Your task to perform on an android device: clear history in the chrome app Image 0: 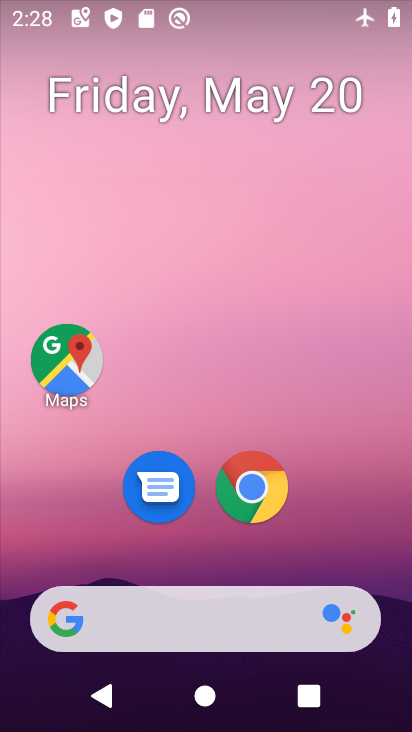
Step 0: drag from (310, 529) to (407, 4)
Your task to perform on an android device: clear history in the chrome app Image 1: 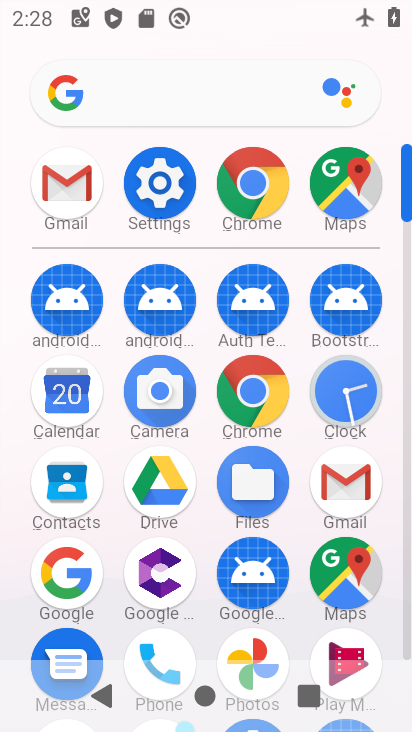
Step 1: click (259, 186)
Your task to perform on an android device: clear history in the chrome app Image 2: 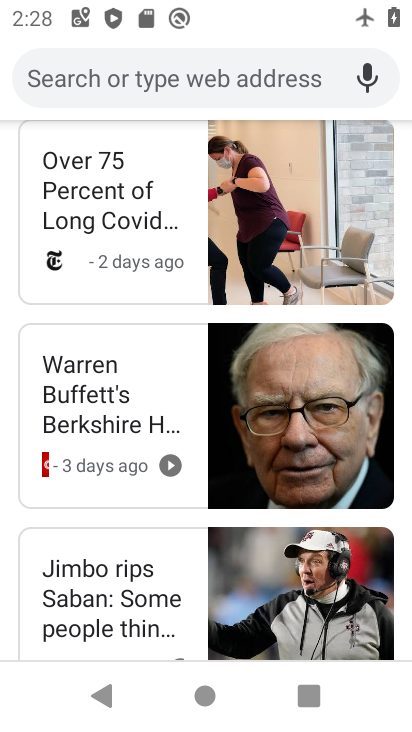
Step 2: drag from (199, 189) to (273, 685)
Your task to perform on an android device: clear history in the chrome app Image 3: 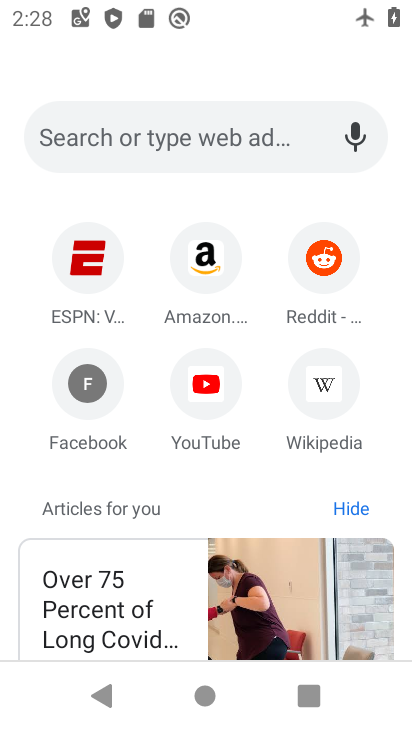
Step 3: drag from (305, 181) to (385, 617)
Your task to perform on an android device: clear history in the chrome app Image 4: 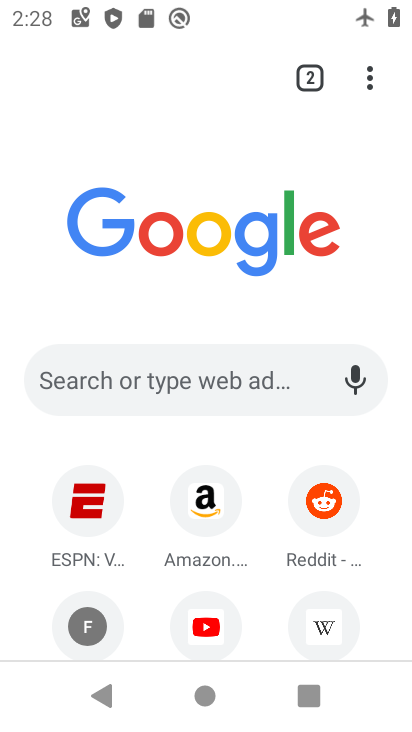
Step 4: drag from (360, 85) to (108, 438)
Your task to perform on an android device: clear history in the chrome app Image 5: 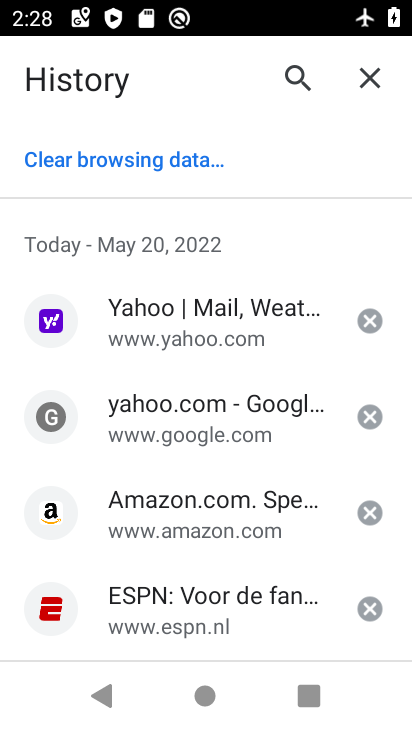
Step 5: click (83, 154)
Your task to perform on an android device: clear history in the chrome app Image 6: 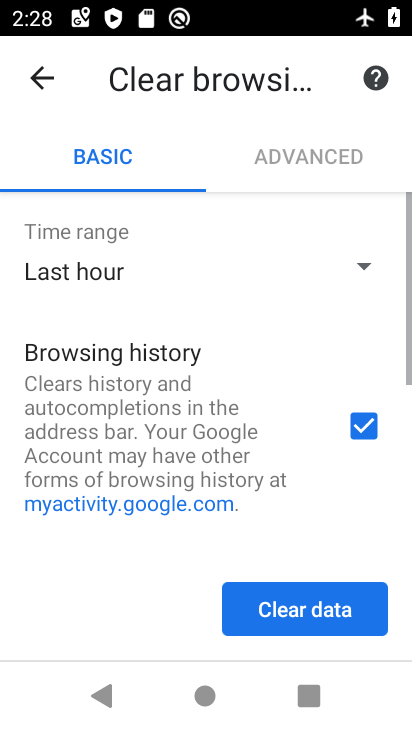
Step 6: click (348, 607)
Your task to perform on an android device: clear history in the chrome app Image 7: 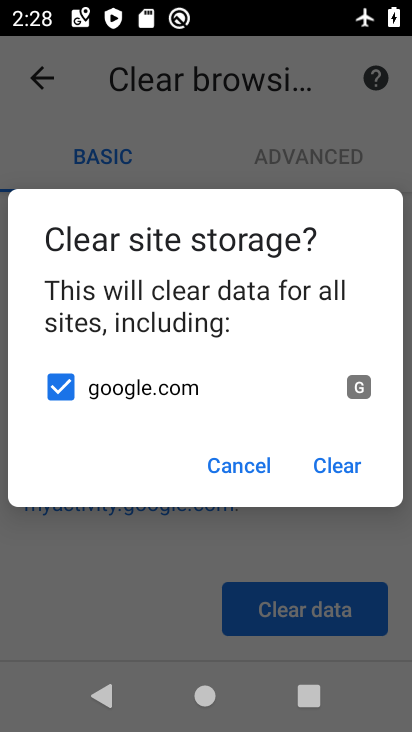
Step 7: click (312, 466)
Your task to perform on an android device: clear history in the chrome app Image 8: 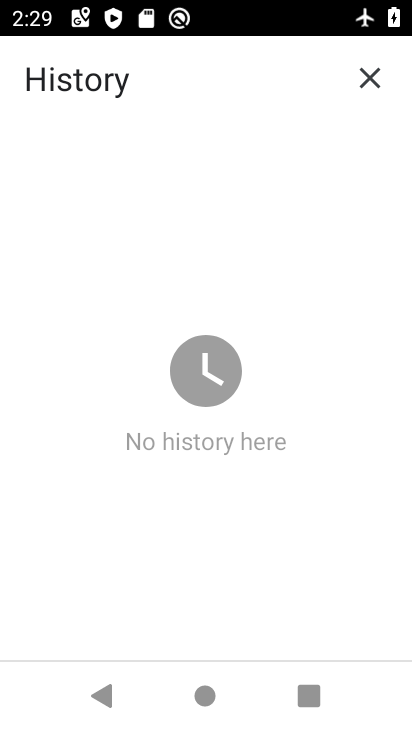
Step 8: task complete